Your task to perform on an android device: refresh tabs in the chrome app Image 0: 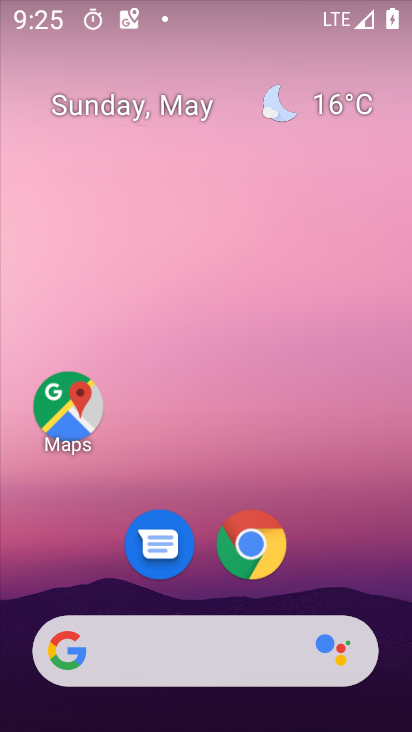
Step 0: drag from (227, 588) to (95, 0)
Your task to perform on an android device: refresh tabs in the chrome app Image 1: 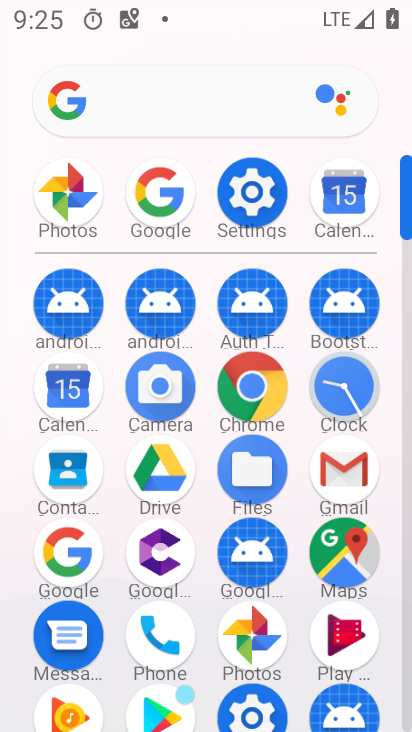
Step 1: click (247, 386)
Your task to perform on an android device: refresh tabs in the chrome app Image 2: 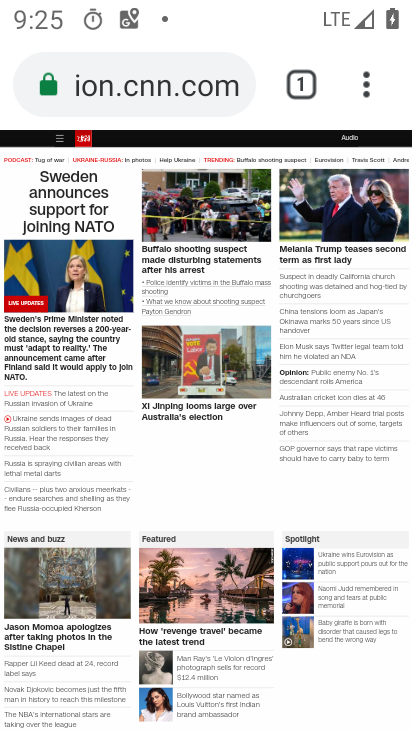
Step 2: click (369, 84)
Your task to perform on an android device: refresh tabs in the chrome app Image 3: 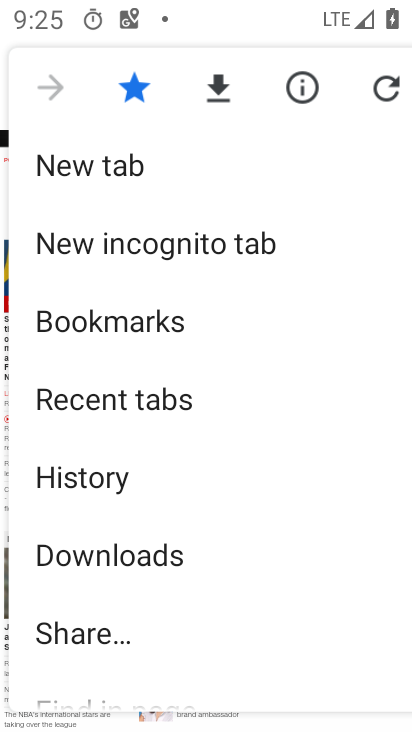
Step 3: click (386, 92)
Your task to perform on an android device: refresh tabs in the chrome app Image 4: 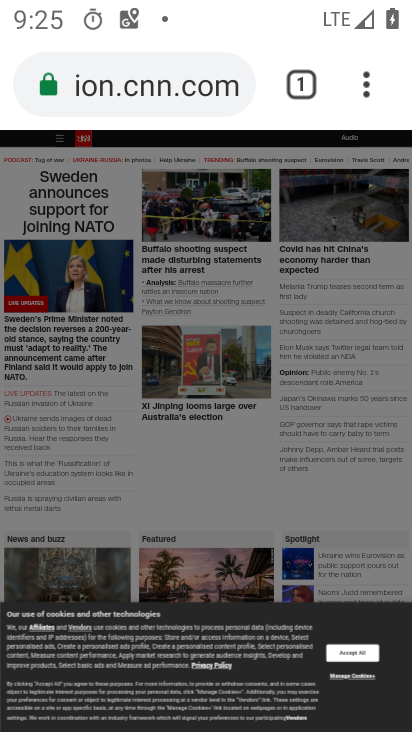
Step 4: task complete